Your task to perform on an android device: Clear the shopping cart on newegg.com. Add energizer triple a to the cart on newegg.com Image 0: 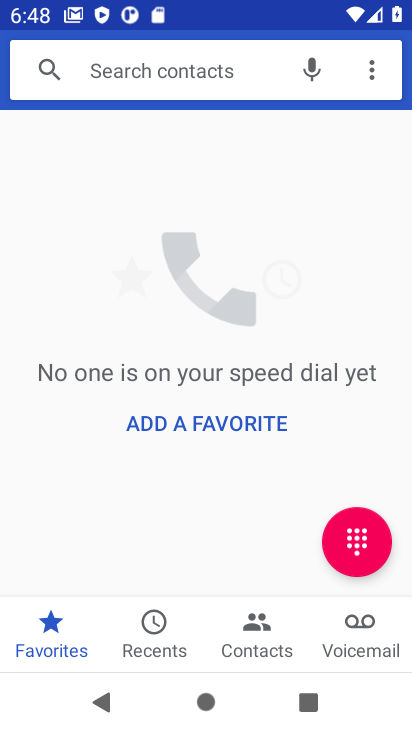
Step 0: press home button
Your task to perform on an android device: Clear the shopping cart on newegg.com. Add energizer triple a to the cart on newegg.com Image 1: 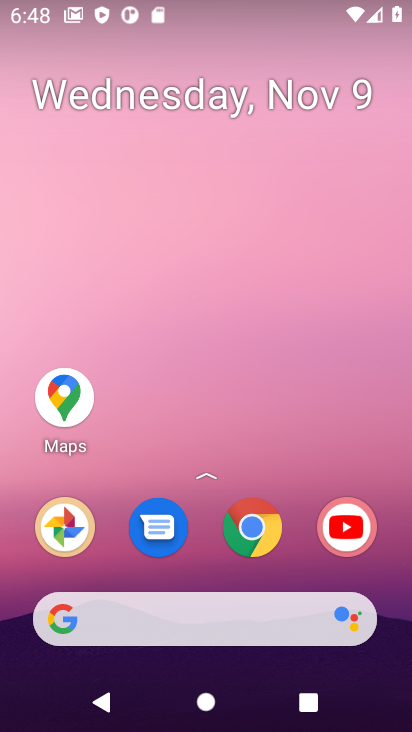
Step 1: click (257, 523)
Your task to perform on an android device: Clear the shopping cart on newegg.com. Add energizer triple a to the cart on newegg.com Image 2: 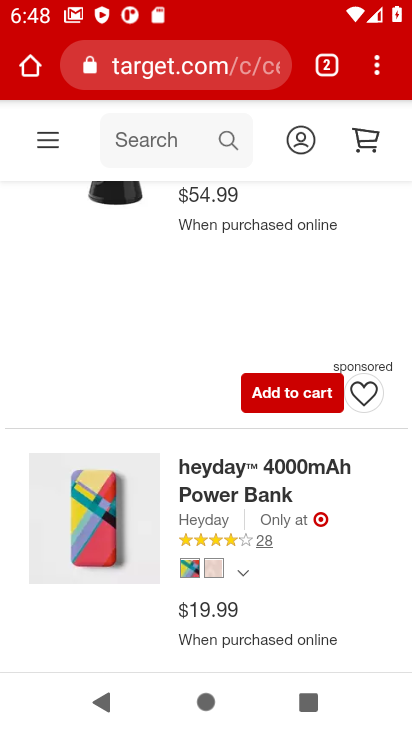
Step 2: click (215, 76)
Your task to perform on an android device: Clear the shopping cart on newegg.com. Add energizer triple a to the cart on newegg.com Image 3: 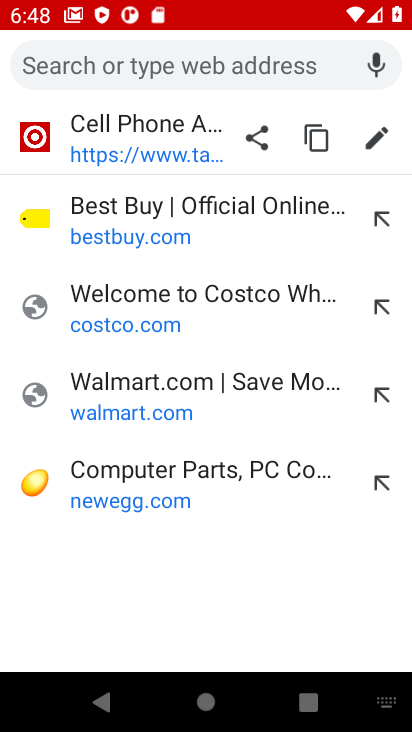
Step 3: type "newegg.com"
Your task to perform on an android device: Clear the shopping cart on newegg.com. Add energizer triple a to the cart on newegg.com Image 4: 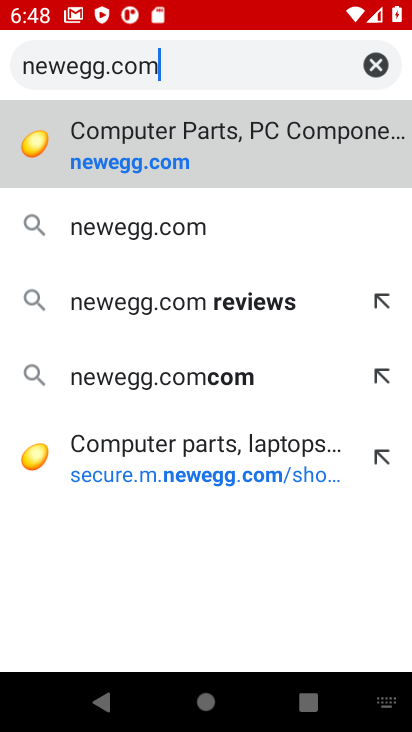
Step 4: click (142, 163)
Your task to perform on an android device: Clear the shopping cart on newegg.com. Add energizer triple a to the cart on newegg.com Image 5: 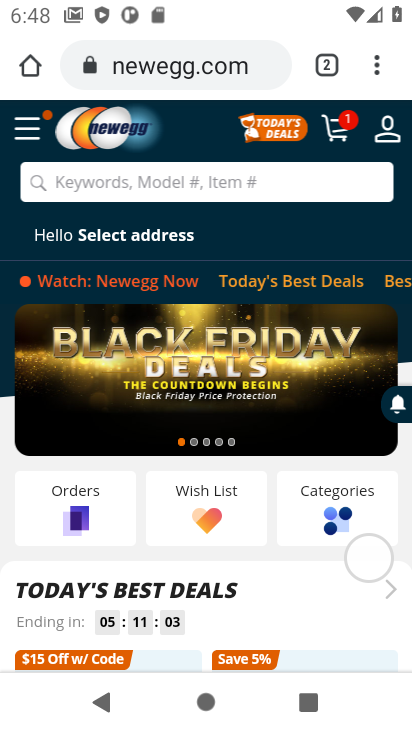
Step 5: click (333, 139)
Your task to perform on an android device: Clear the shopping cart on newegg.com. Add energizer triple a to the cart on newegg.com Image 6: 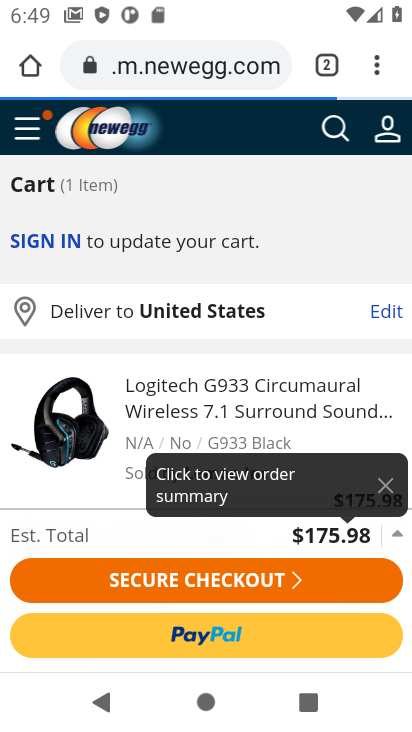
Step 6: drag from (224, 428) to (218, 232)
Your task to perform on an android device: Clear the shopping cart on newegg.com. Add energizer triple a to the cart on newegg.com Image 7: 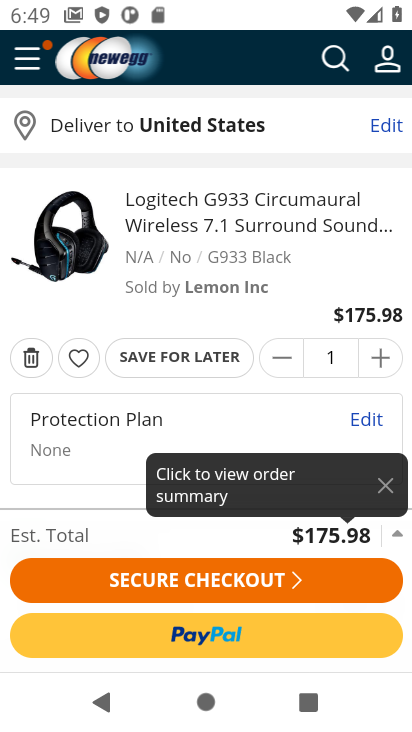
Step 7: click (29, 358)
Your task to perform on an android device: Clear the shopping cart on newegg.com. Add energizer triple a to the cart on newegg.com Image 8: 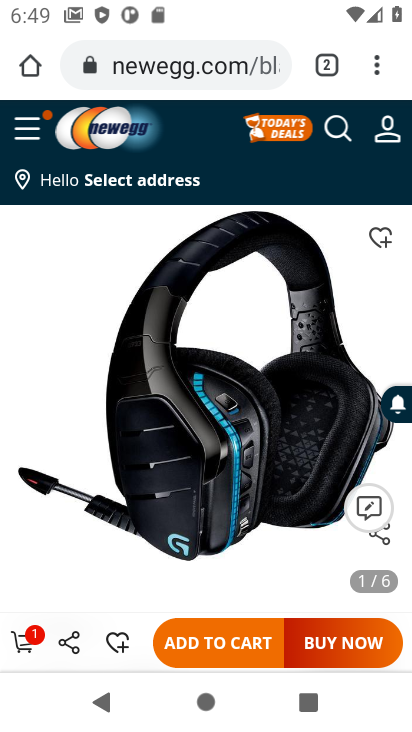
Step 8: click (18, 644)
Your task to perform on an android device: Clear the shopping cart on newegg.com. Add energizer triple a to the cart on newegg.com Image 9: 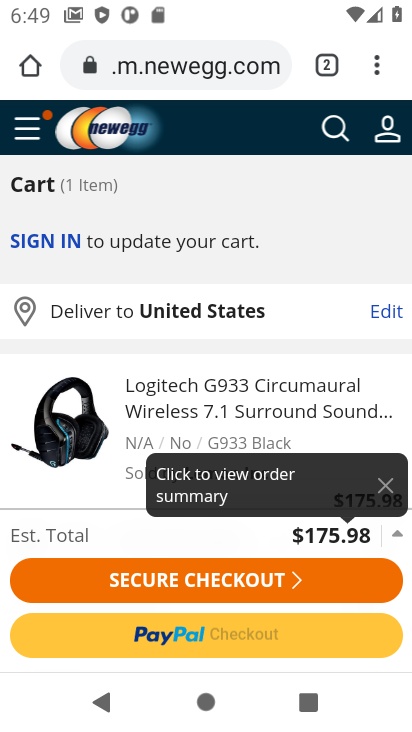
Step 9: drag from (96, 439) to (104, 279)
Your task to perform on an android device: Clear the shopping cart on newegg.com. Add energizer triple a to the cart on newegg.com Image 10: 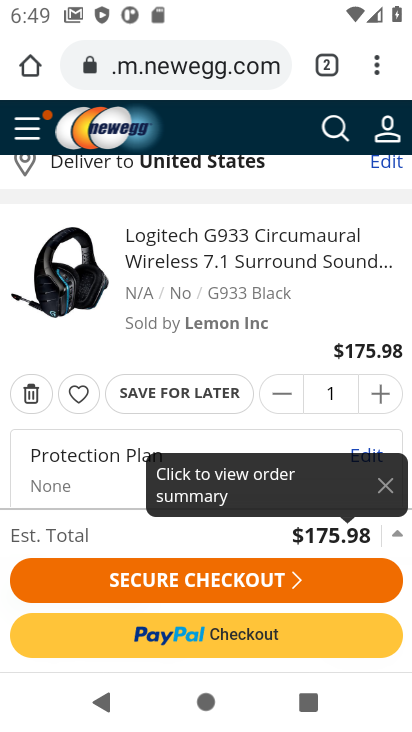
Step 10: click (35, 401)
Your task to perform on an android device: Clear the shopping cart on newegg.com. Add energizer triple a to the cart on newegg.com Image 11: 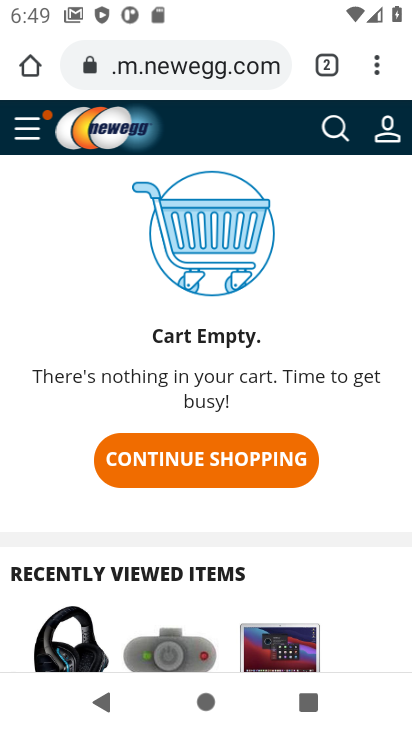
Step 11: click (196, 459)
Your task to perform on an android device: Clear the shopping cart on newegg.com. Add energizer triple a to the cart on newegg.com Image 12: 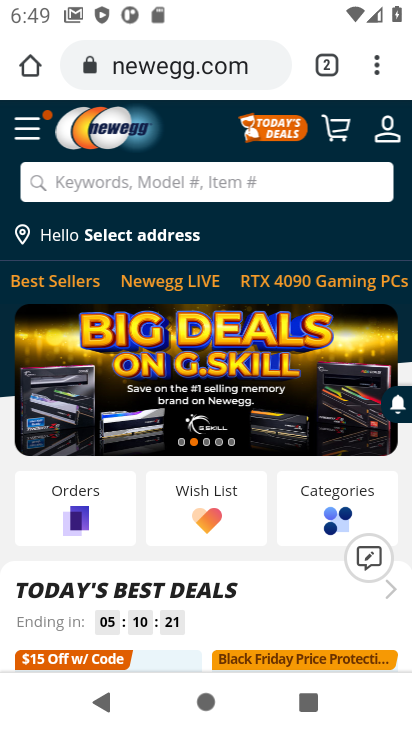
Step 12: click (254, 190)
Your task to perform on an android device: Clear the shopping cart on newegg.com. Add energizer triple a to the cart on newegg.com Image 13: 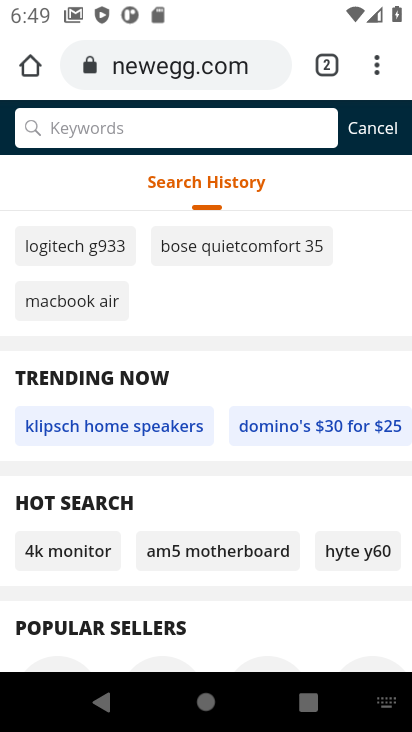
Step 13: type "energizer triple a"
Your task to perform on an android device: Clear the shopping cart on newegg.com. Add energizer triple a to the cart on newegg.com Image 14: 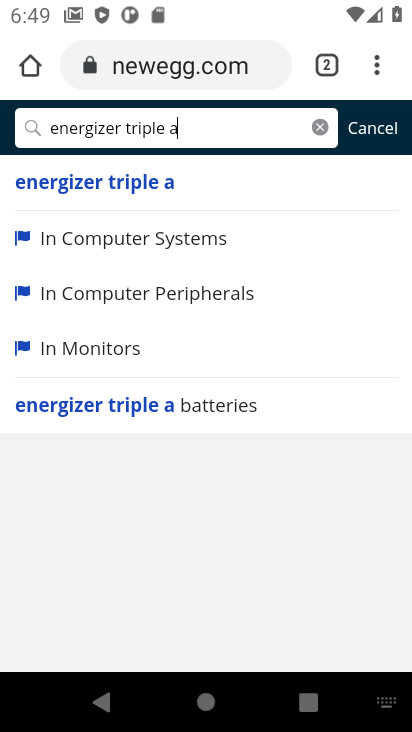
Step 14: click (121, 193)
Your task to perform on an android device: Clear the shopping cart on newegg.com. Add energizer triple a to the cart on newegg.com Image 15: 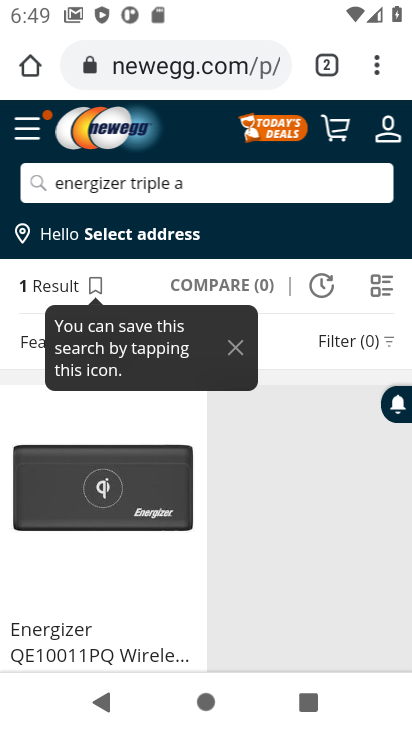
Step 15: task complete